Your task to perform on an android device: toggle data saver in the chrome app Image 0: 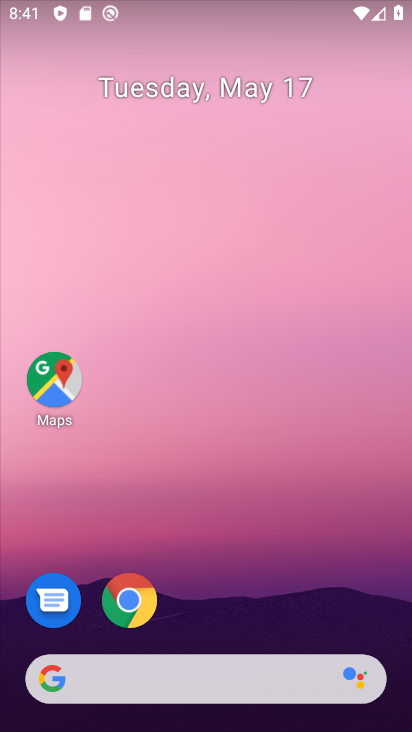
Step 0: click (132, 599)
Your task to perform on an android device: toggle data saver in the chrome app Image 1: 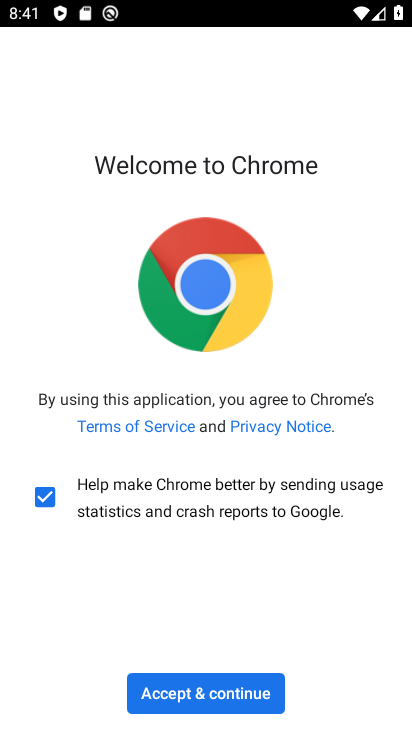
Step 1: click (199, 699)
Your task to perform on an android device: toggle data saver in the chrome app Image 2: 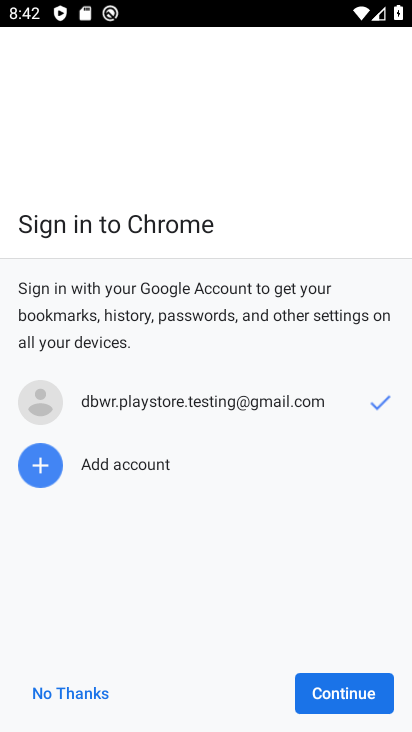
Step 2: click (349, 679)
Your task to perform on an android device: toggle data saver in the chrome app Image 3: 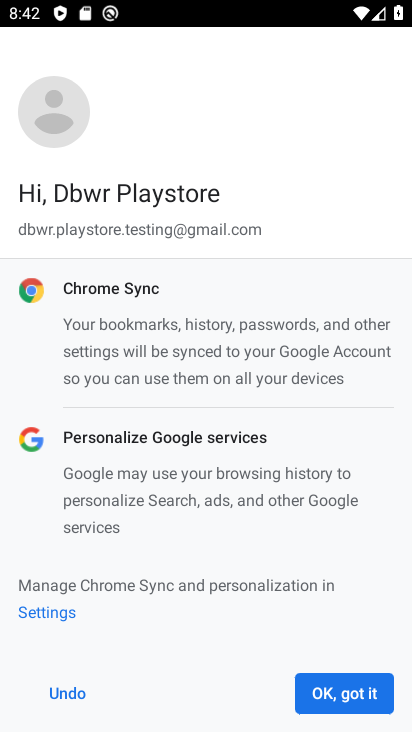
Step 3: click (345, 685)
Your task to perform on an android device: toggle data saver in the chrome app Image 4: 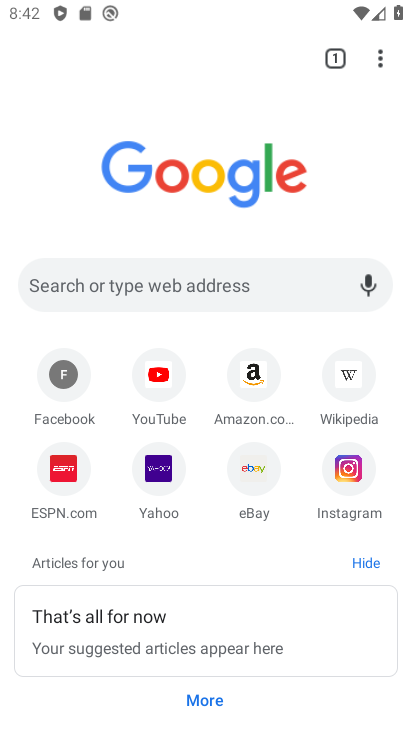
Step 4: click (384, 60)
Your task to perform on an android device: toggle data saver in the chrome app Image 5: 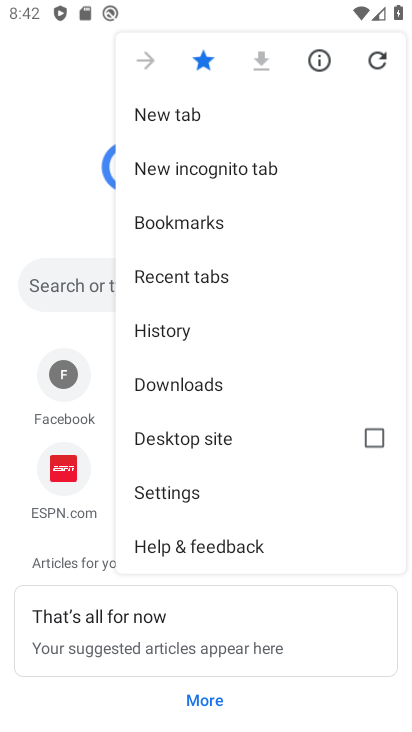
Step 5: click (199, 497)
Your task to perform on an android device: toggle data saver in the chrome app Image 6: 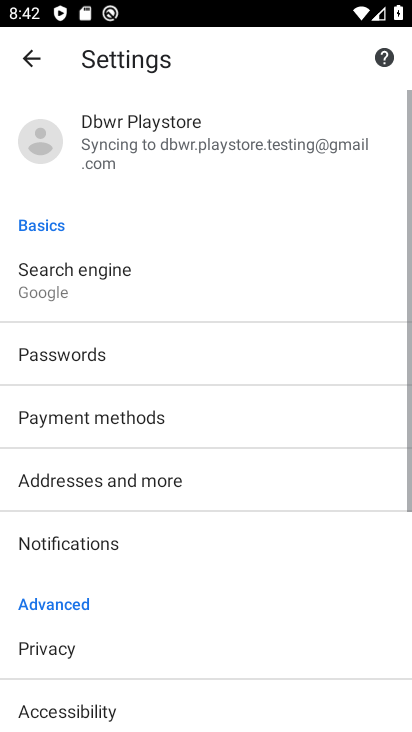
Step 6: drag from (202, 637) to (229, 240)
Your task to perform on an android device: toggle data saver in the chrome app Image 7: 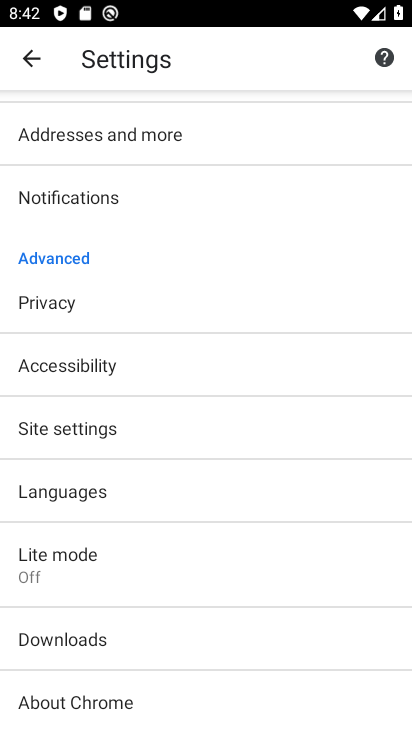
Step 7: click (91, 571)
Your task to perform on an android device: toggle data saver in the chrome app Image 8: 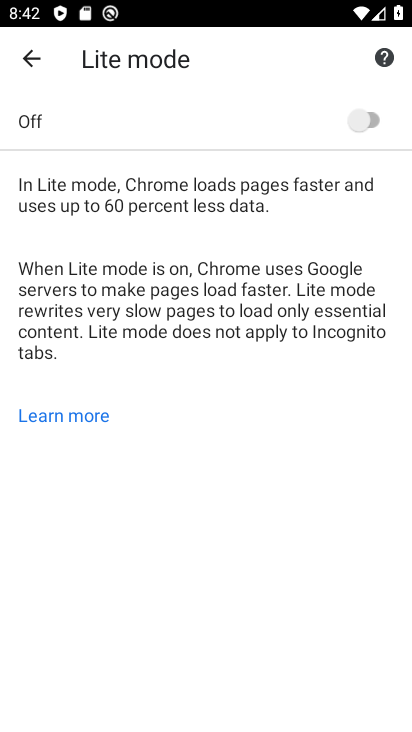
Step 8: click (380, 120)
Your task to perform on an android device: toggle data saver in the chrome app Image 9: 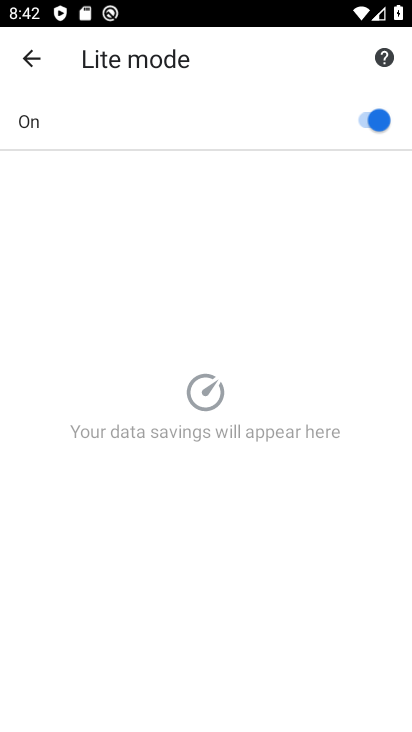
Step 9: task complete